Your task to perform on an android device: Open sound settings Image 0: 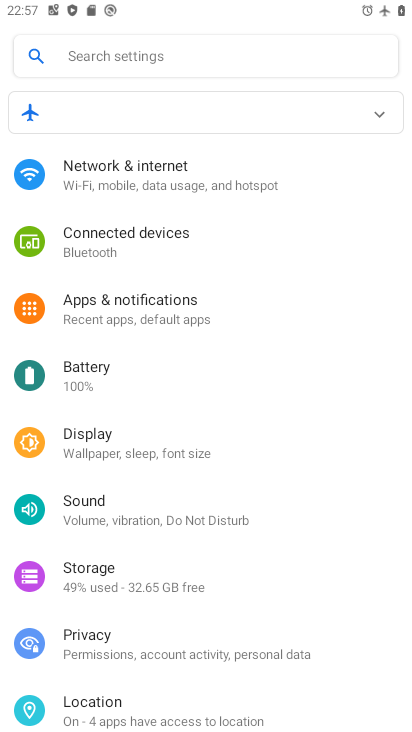
Step 0: press home button
Your task to perform on an android device: Open sound settings Image 1: 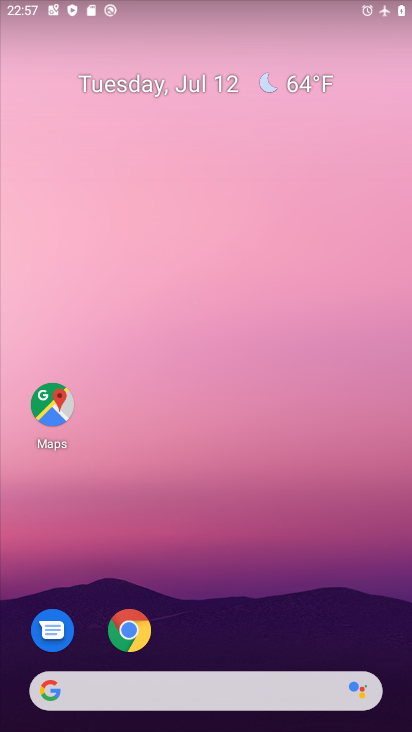
Step 1: drag from (190, 666) to (160, 61)
Your task to perform on an android device: Open sound settings Image 2: 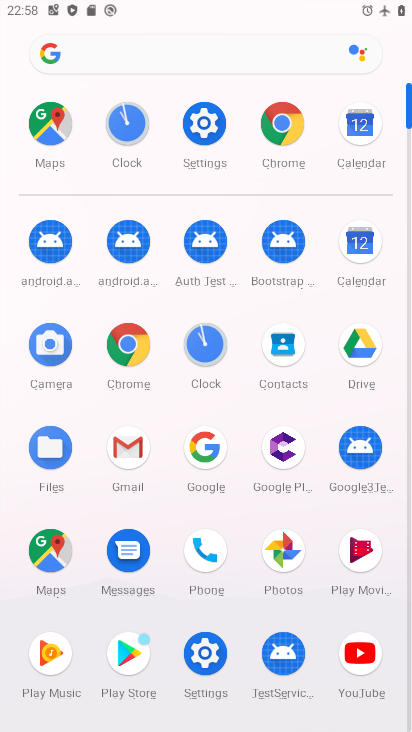
Step 2: click (219, 655)
Your task to perform on an android device: Open sound settings Image 3: 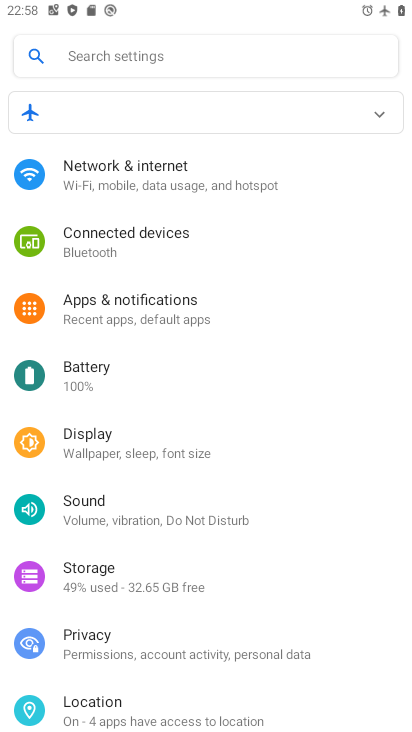
Step 3: click (109, 521)
Your task to perform on an android device: Open sound settings Image 4: 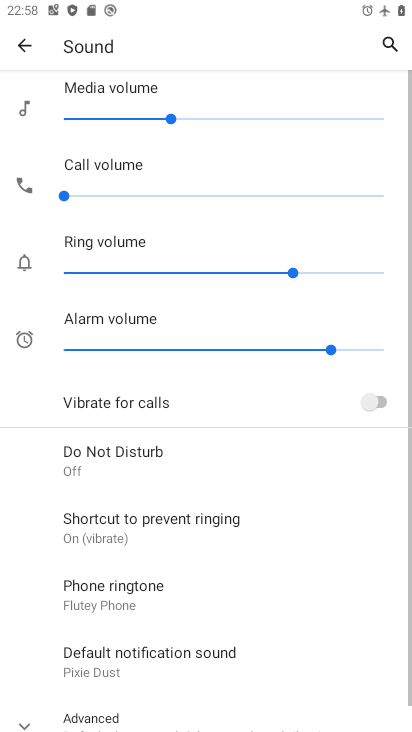
Step 4: task complete